Your task to perform on an android device: Search for macbook on costco.com, select the first entry, add it to the cart, then select checkout. Image 0: 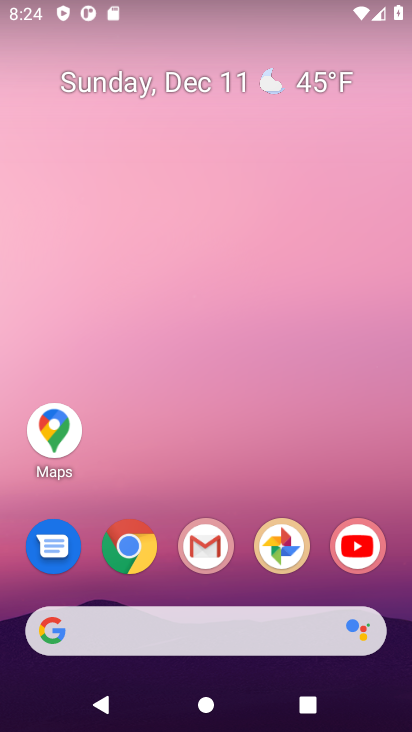
Step 0: click (133, 550)
Your task to perform on an android device: Search for macbook on costco.com, select the first entry, add it to the cart, then select checkout. Image 1: 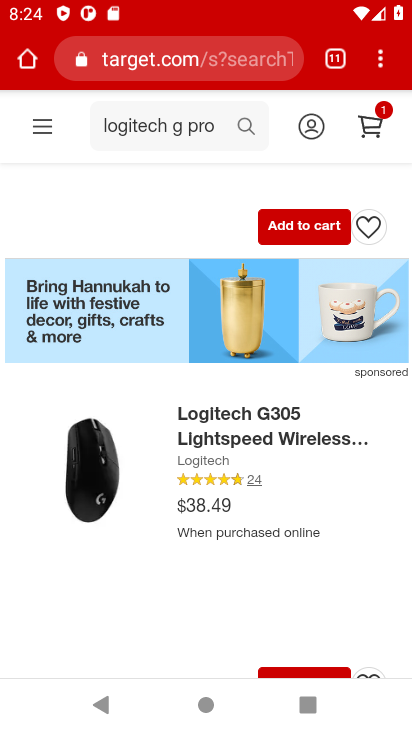
Step 1: click (167, 59)
Your task to perform on an android device: Search for macbook on costco.com, select the first entry, add it to the cart, then select checkout. Image 2: 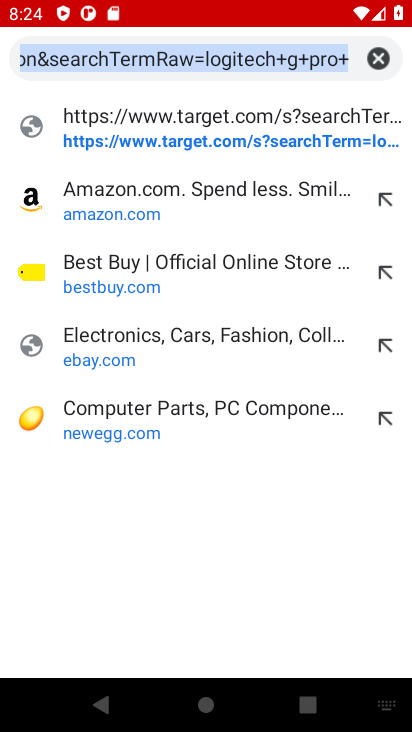
Step 2: click (375, 56)
Your task to perform on an android device: Search for macbook on costco.com, select the first entry, add it to the cart, then select checkout. Image 3: 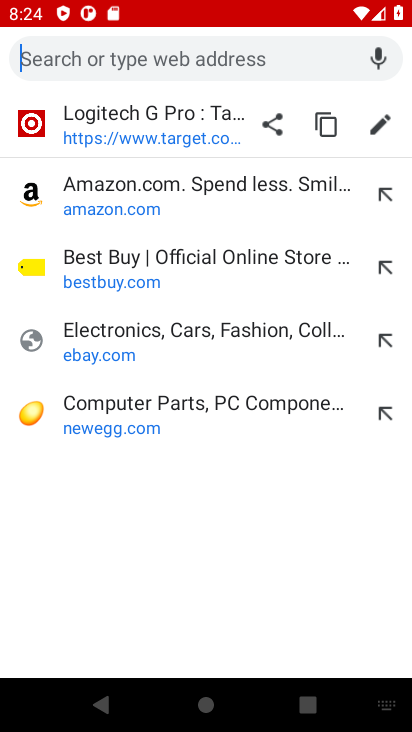
Step 3: type "costco.com"
Your task to perform on an android device: Search for macbook on costco.com, select the first entry, add it to the cart, then select checkout. Image 4: 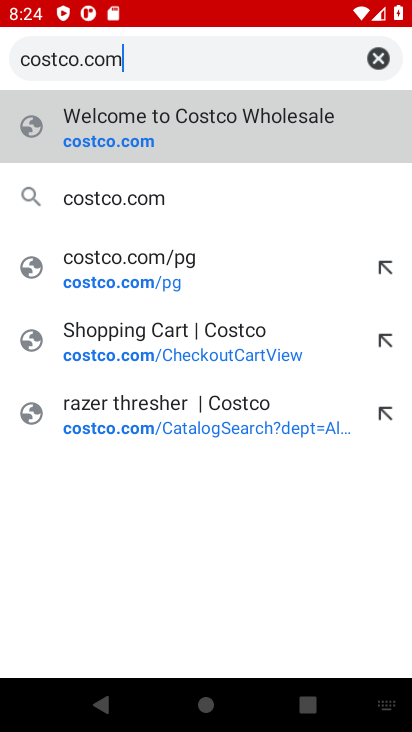
Step 4: click (99, 145)
Your task to perform on an android device: Search for macbook on costco.com, select the first entry, add it to the cart, then select checkout. Image 5: 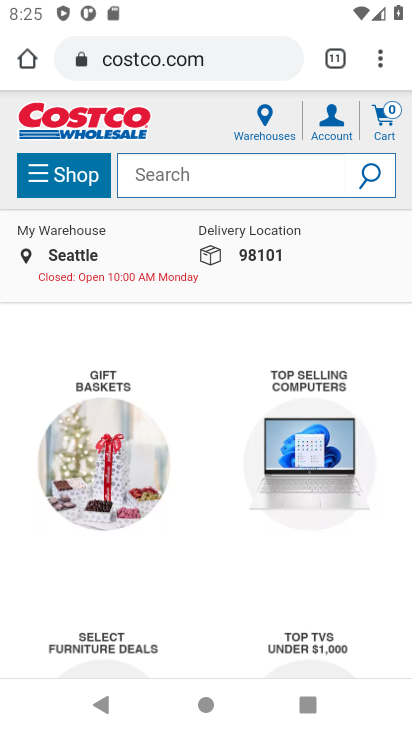
Step 5: click (146, 185)
Your task to perform on an android device: Search for macbook on costco.com, select the first entry, add it to the cart, then select checkout. Image 6: 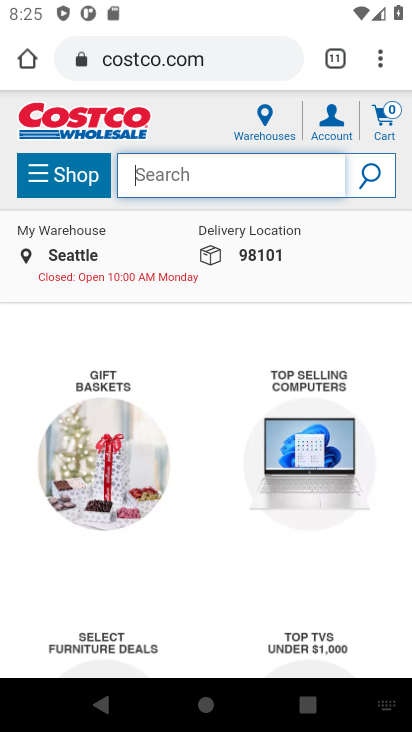
Step 6: type " macbook"
Your task to perform on an android device: Search for macbook on costco.com, select the first entry, add it to the cart, then select checkout. Image 7: 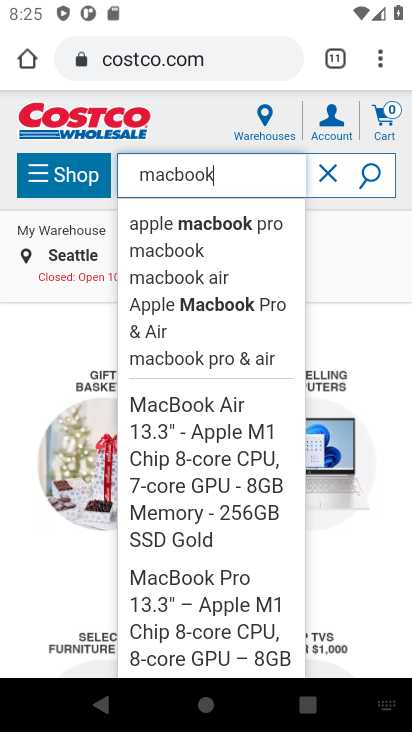
Step 7: click (367, 179)
Your task to perform on an android device: Search for macbook on costco.com, select the first entry, add it to the cart, then select checkout. Image 8: 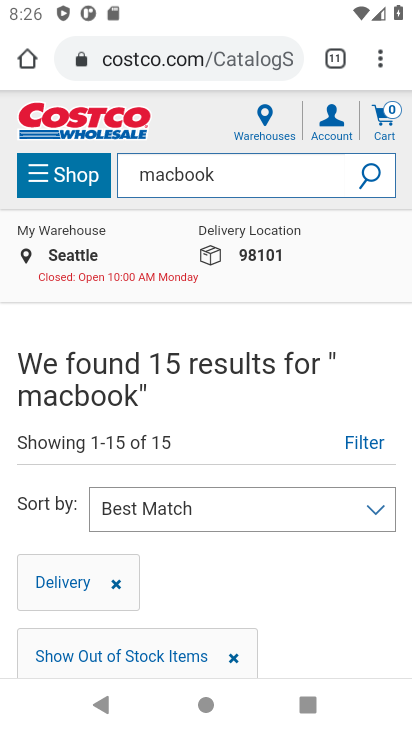
Step 8: drag from (212, 506) to (218, 320)
Your task to perform on an android device: Search for macbook on costco.com, select the first entry, add it to the cart, then select checkout. Image 9: 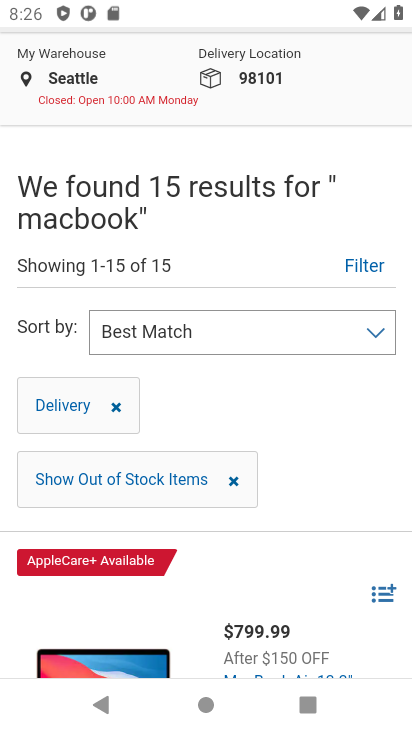
Step 9: drag from (237, 410) to (225, 150)
Your task to perform on an android device: Search for macbook on costco.com, select the first entry, add it to the cart, then select checkout. Image 10: 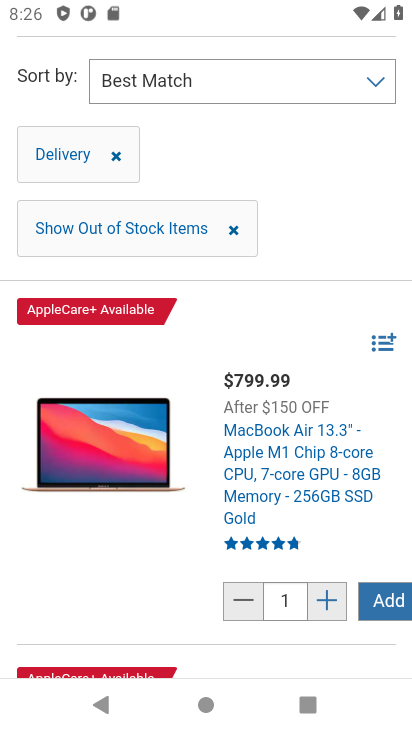
Step 10: drag from (260, 434) to (242, 230)
Your task to perform on an android device: Search for macbook on costco.com, select the first entry, add it to the cart, then select checkout. Image 11: 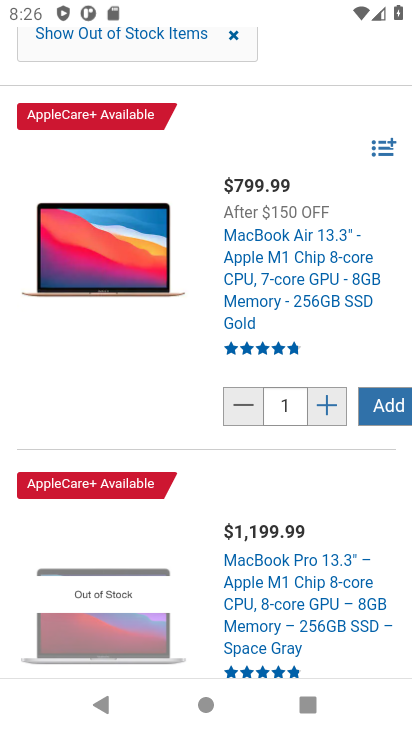
Step 11: click (263, 275)
Your task to perform on an android device: Search for macbook on costco.com, select the first entry, add it to the cart, then select checkout. Image 12: 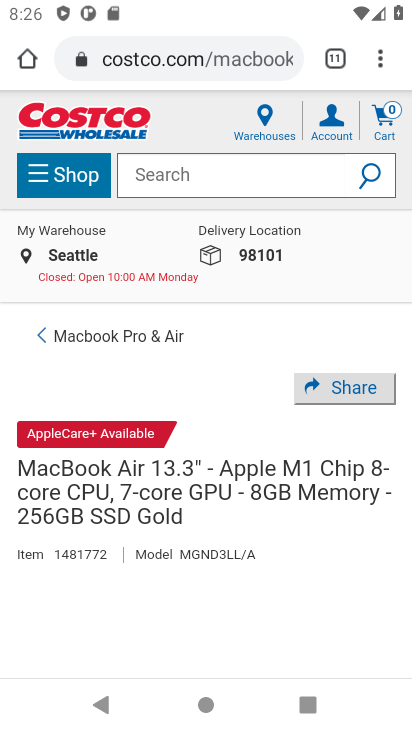
Step 12: drag from (226, 496) to (218, 84)
Your task to perform on an android device: Search for macbook on costco.com, select the first entry, add it to the cart, then select checkout. Image 13: 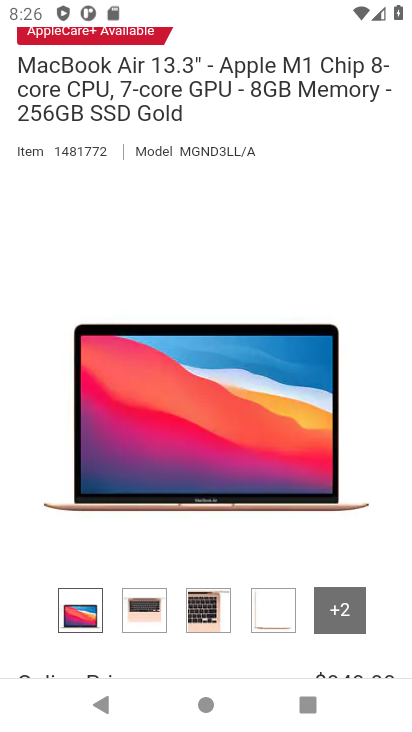
Step 13: drag from (201, 430) to (202, 111)
Your task to perform on an android device: Search for macbook on costco.com, select the first entry, add it to the cart, then select checkout. Image 14: 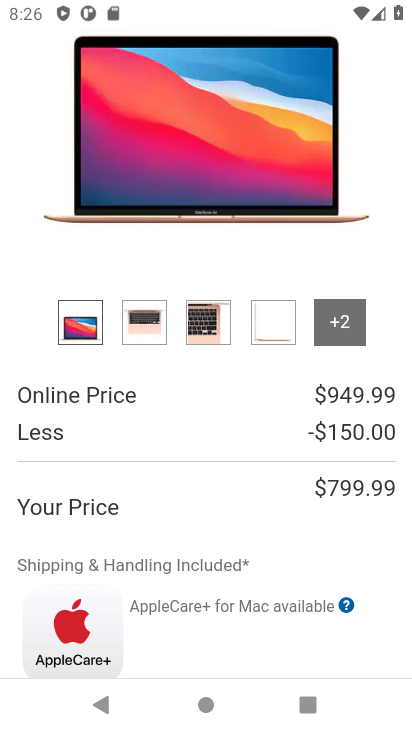
Step 14: drag from (197, 404) to (201, 120)
Your task to perform on an android device: Search for macbook on costco.com, select the first entry, add it to the cart, then select checkout. Image 15: 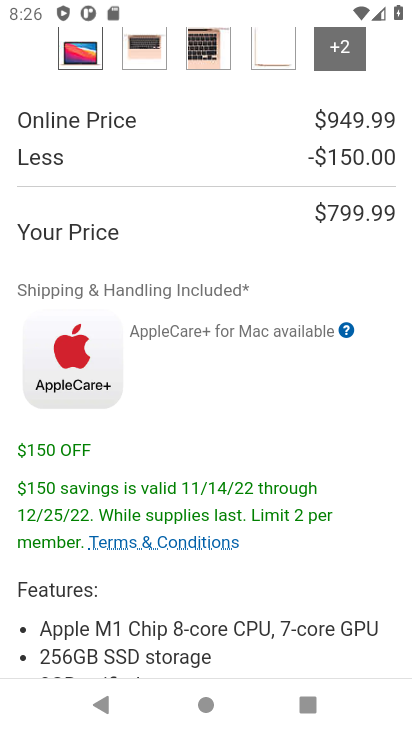
Step 15: drag from (207, 381) to (201, 107)
Your task to perform on an android device: Search for macbook on costco.com, select the first entry, add it to the cart, then select checkout. Image 16: 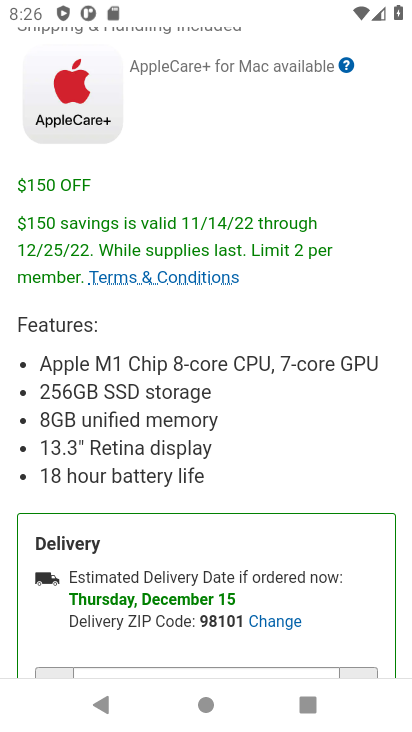
Step 16: drag from (198, 420) to (188, 89)
Your task to perform on an android device: Search for macbook on costco.com, select the first entry, add it to the cart, then select checkout. Image 17: 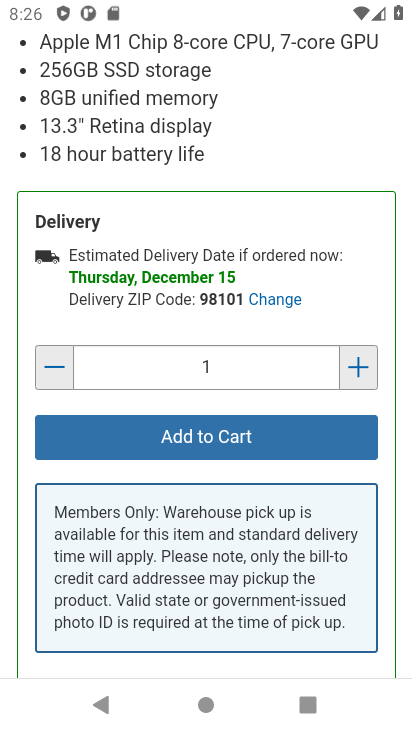
Step 17: click (197, 433)
Your task to perform on an android device: Search for macbook on costco.com, select the first entry, add it to the cart, then select checkout. Image 18: 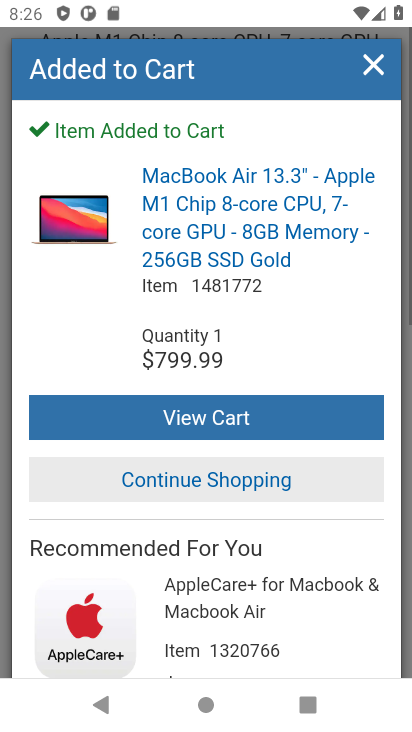
Step 18: click (197, 422)
Your task to perform on an android device: Search for macbook on costco.com, select the first entry, add it to the cart, then select checkout. Image 19: 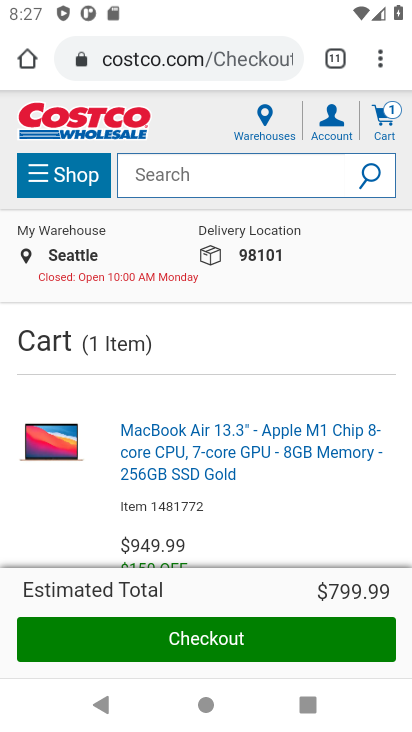
Step 19: click (194, 646)
Your task to perform on an android device: Search for macbook on costco.com, select the first entry, add it to the cart, then select checkout. Image 20: 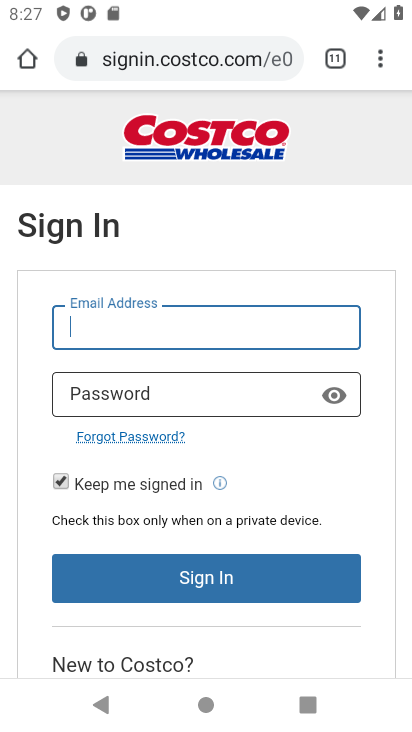
Step 20: task complete